Your task to perform on an android device: turn notification dots off Image 0: 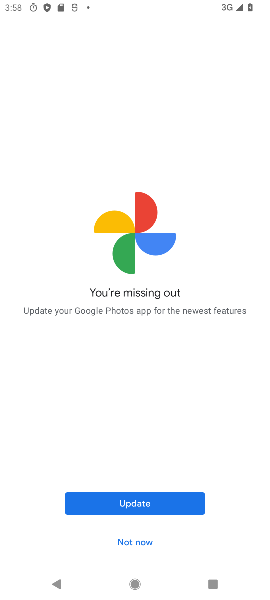
Step 0: press home button
Your task to perform on an android device: turn notification dots off Image 1: 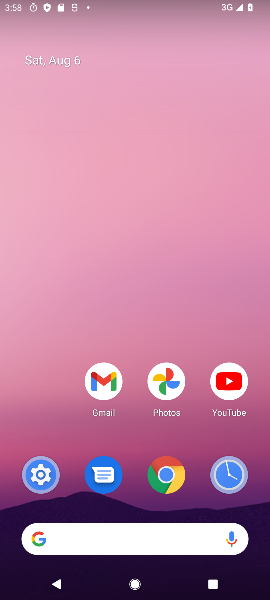
Step 1: click (45, 485)
Your task to perform on an android device: turn notification dots off Image 2: 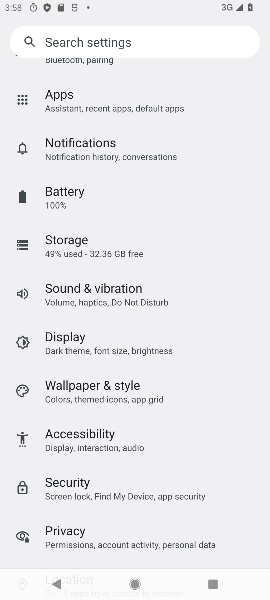
Step 2: click (88, 141)
Your task to perform on an android device: turn notification dots off Image 3: 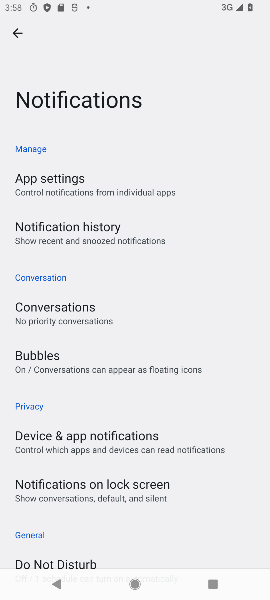
Step 3: click (251, 539)
Your task to perform on an android device: turn notification dots off Image 4: 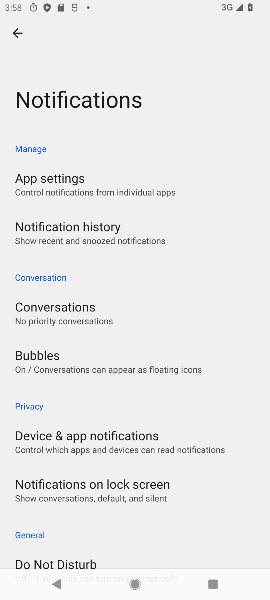
Step 4: drag from (251, 539) to (136, 215)
Your task to perform on an android device: turn notification dots off Image 5: 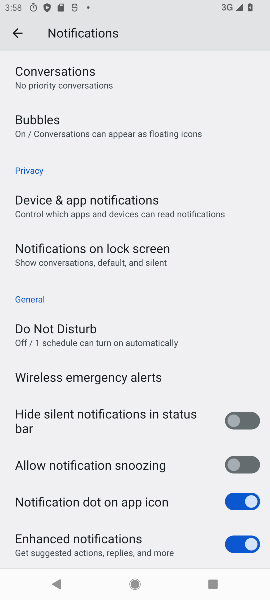
Step 5: click (245, 500)
Your task to perform on an android device: turn notification dots off Image 6: 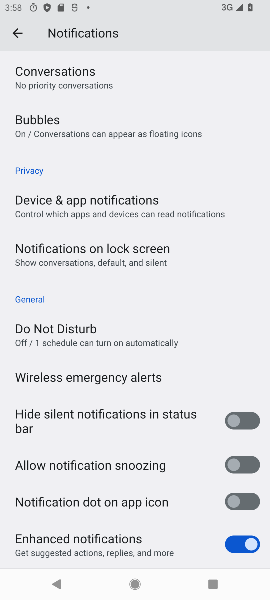
Step 6: task complete